Your task to perform on an android device: Turn off the flashlight Image 0: 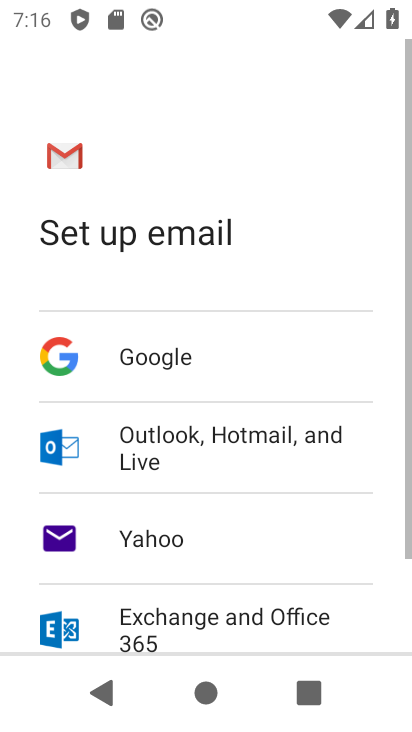
Step 0: press home button
Your task to perform on an android device: Turn off the flashlight Image 1: 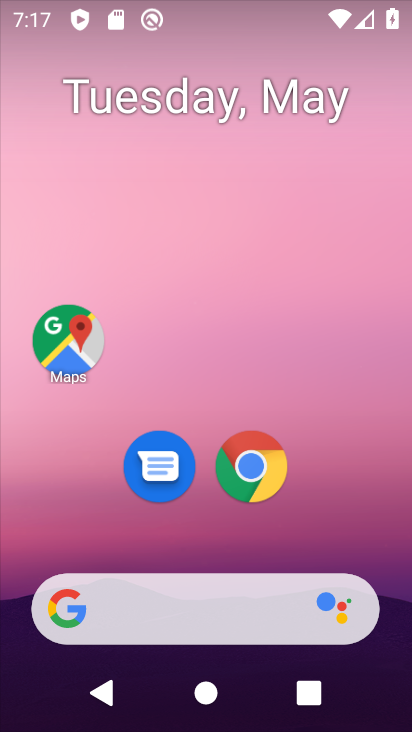
Step 1: drag from (193, 4) to (287, 336)
Your task to perform on an android device: Turn off the flashlight Image 2: 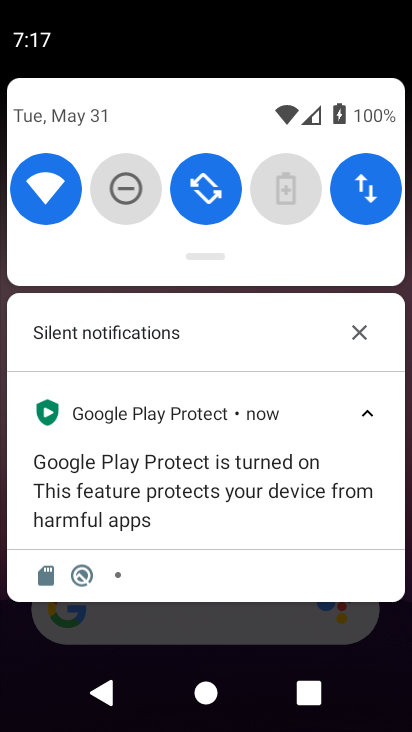
Step 2: drag from (183, 234) to (191, 520)
Your task to perform on an android device: Turn off the flashlight Image 3: 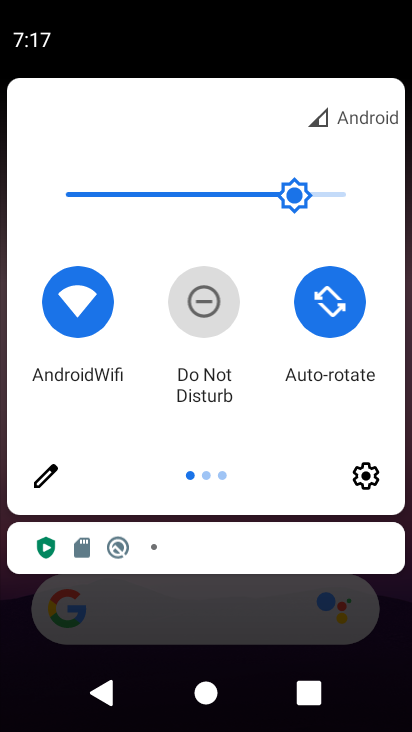
Step 3: drag from (288, 413) to (84, 395)
Your task to perform on an android device: Turn off the flashlight Image 4: 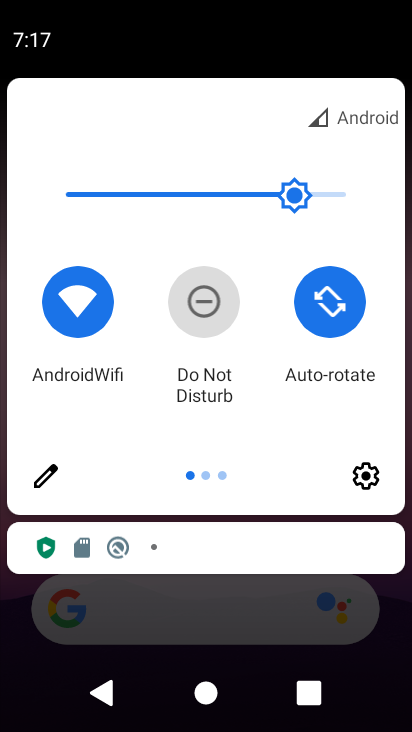
Step 4: drag from (320, 422) to (89, 393)
Your task to perform on an android device: Turn off the flashlight Image 5: 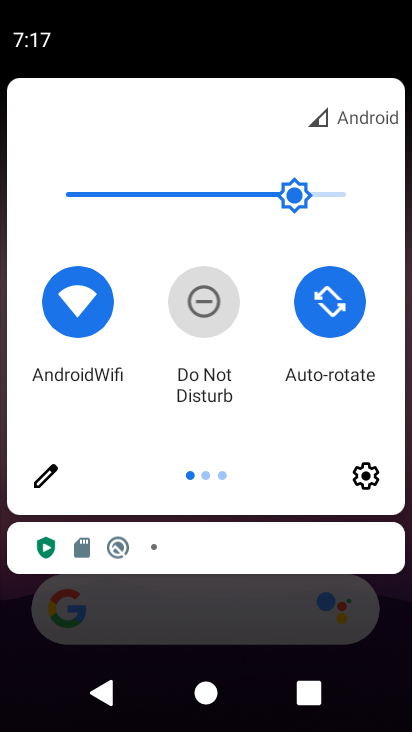
Step 5: drag from (266, 368) to (26, 456)
Your task to perform on an android device: Turn off the flashlight Image 6: 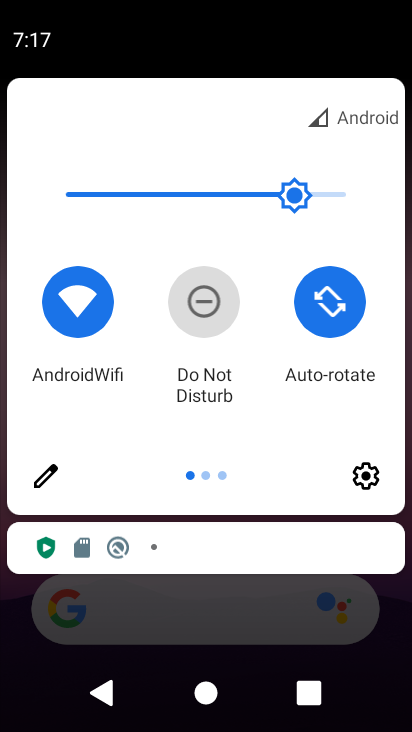
Step 6: drag from (343, 405) to (35, 389)
Your task to perform on an android device: Turn off the flashlight Image 7: 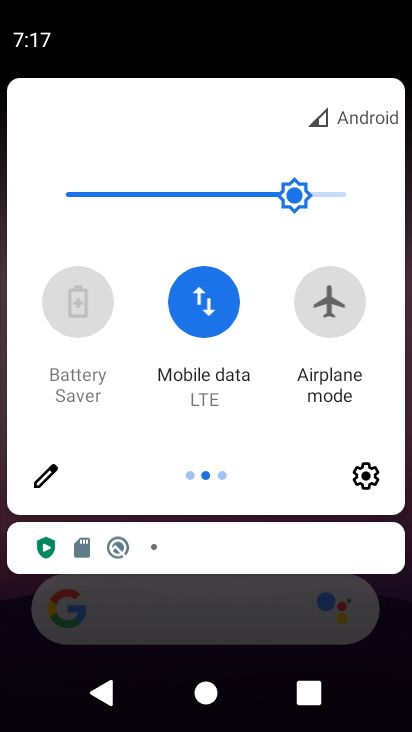
Step 7: click (225, 477)
Your task to perform on an android device: Turn off the flashlight Image 8: 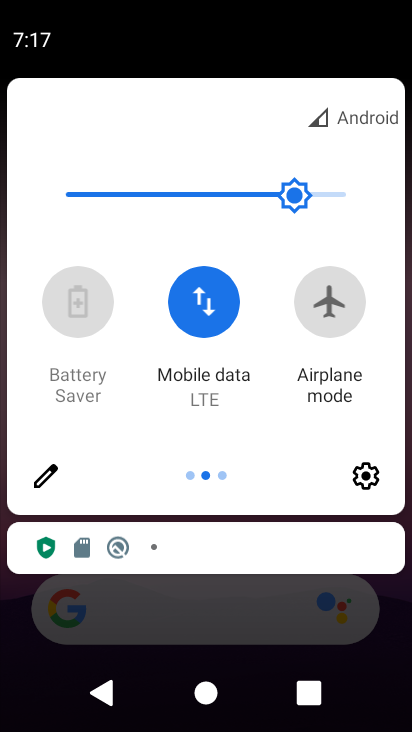
Step 8: click (221, 480)
Your task to perform on an android device: Turn off the flashlight Image 9: 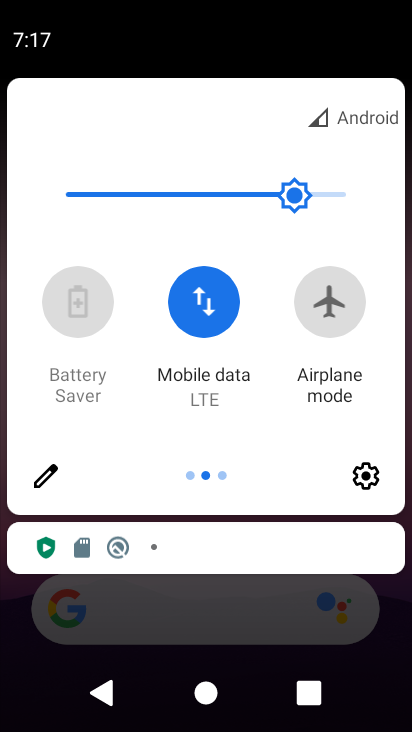
Step 9: task complete